Your task to perform on an android device: Open wifi settings Image 0: 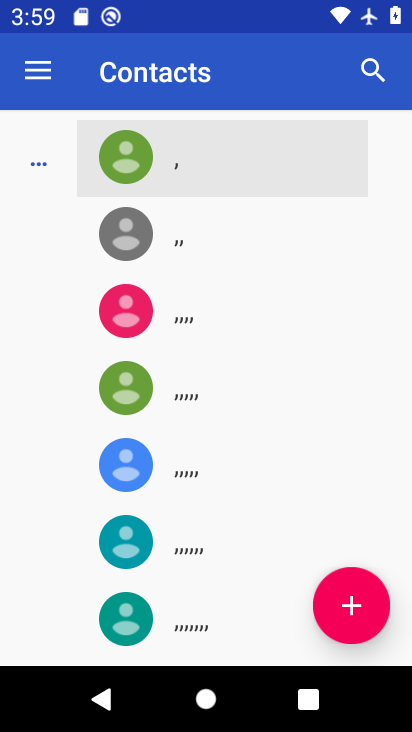
Step 0: press home button
Your task to perform on an android device: Open wifi settings Image 1: 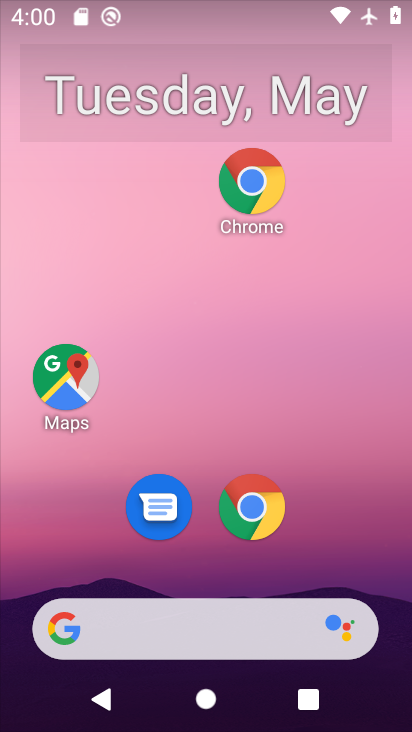
Step 1: drag from (333, 556) to (377, 55)
Your task to perform on an android device: Open wifi settings Image 2: 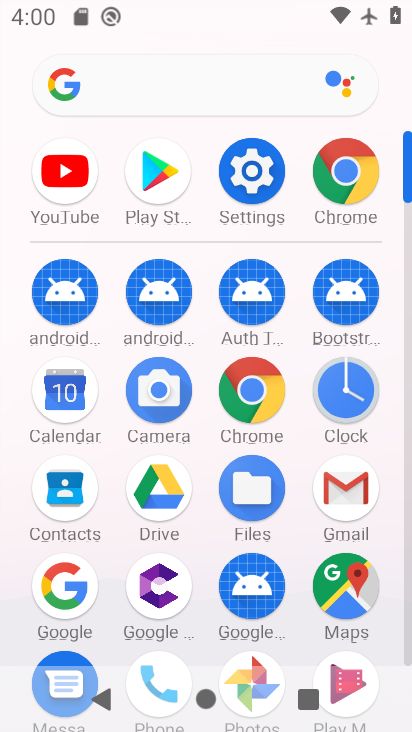
Step 2: click (253, 174)
Your task to perform on an android device: Open wifi settings Image 3: 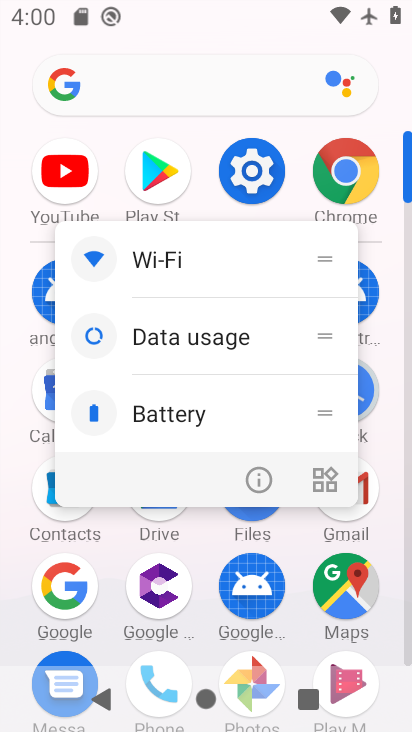
Step 3: click (253, 172)
Your task to perform on an android device: Open wifi settings Image 4: 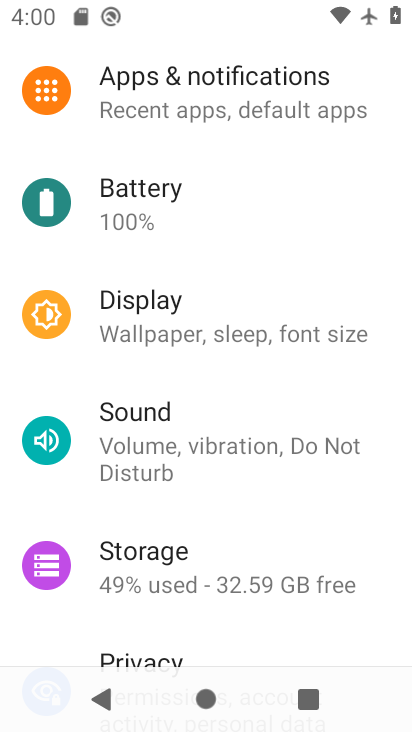
Step 4: drag from (253, 170) to (258, 563)
Your task to perform on an android device: Open wifi settings Image 5: 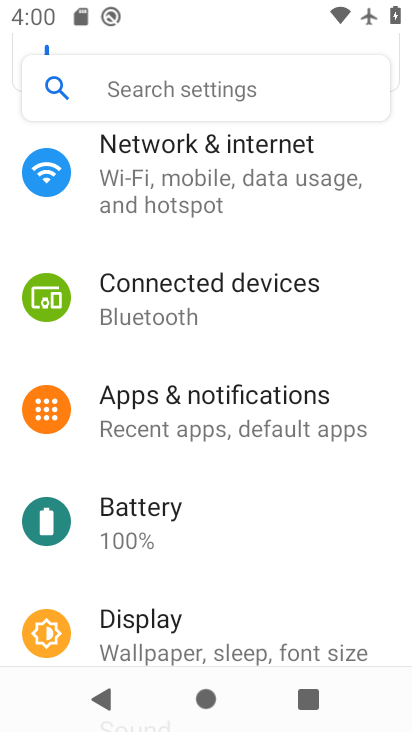
Step 5: drag from (203, 148) to (245, 665)
Your task to perform on an android device: Open wifi settings Image 6: 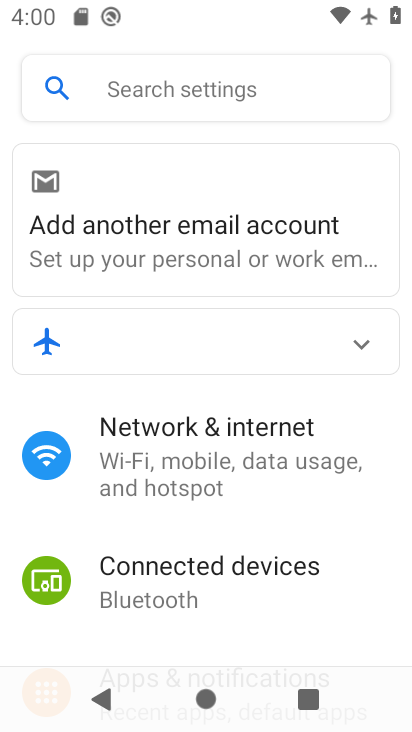
Step 6: click (181, 461)
Your task to perform on an android device: Open wifi settings Image 7: 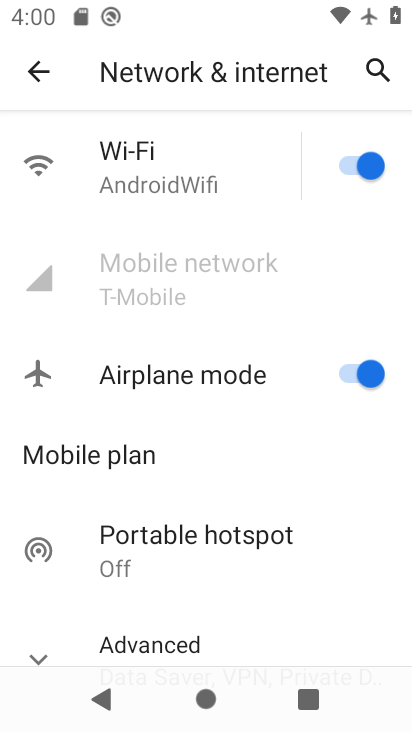
Step 7: click (193, 177)
Your task to perform on an android device: Open wifi settings Image 8: 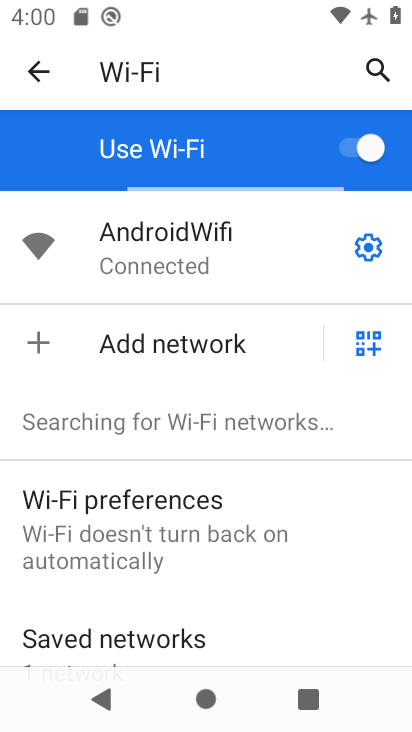
Step 8: task complete